Your task to perform on an android device: Is it going to rain tomorrow? Image 0: 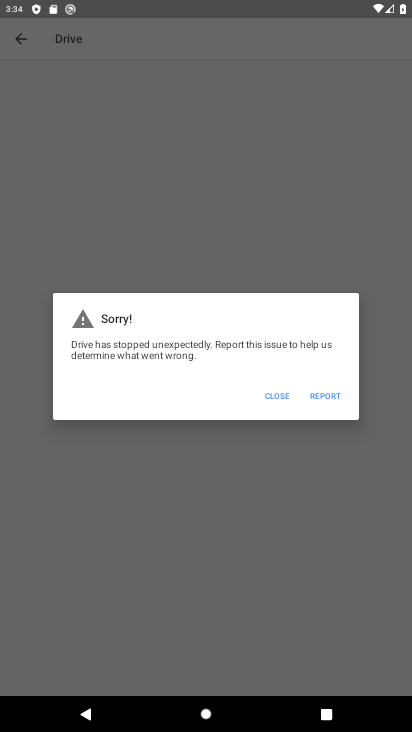
Step 0: click (277, 396)
Your task to perform on an android device: Is it going to rain tomorrow? Image 1: 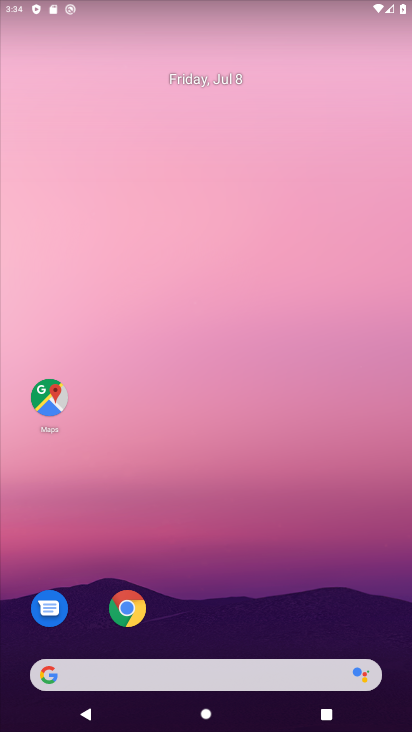
Step 1: drag from (207, 593) to (289, 122)
Your task to perform on an android device: Is it going to rain tomorrow? Image 2: 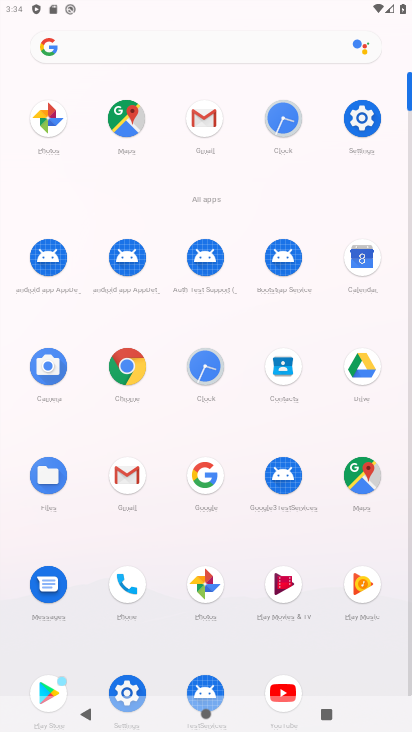
Step 2: click (120, 346)
Your task to perform on an android device: Is it going to rain tomorrow? Image 3: 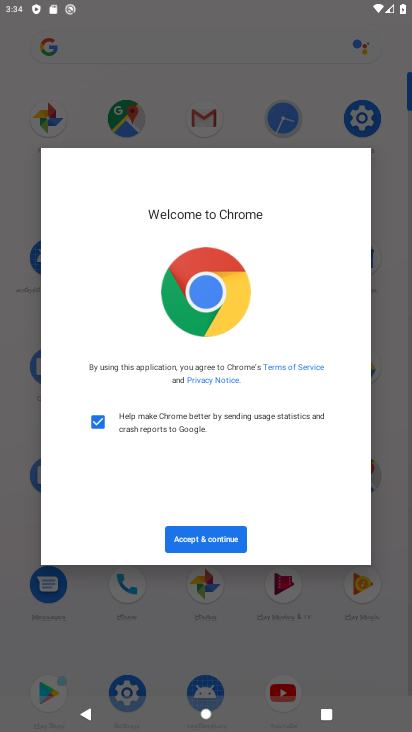
Step 3: click (211, 547)
Your task to perform on an android device: Is it going to rain tomorrow? Image 4: 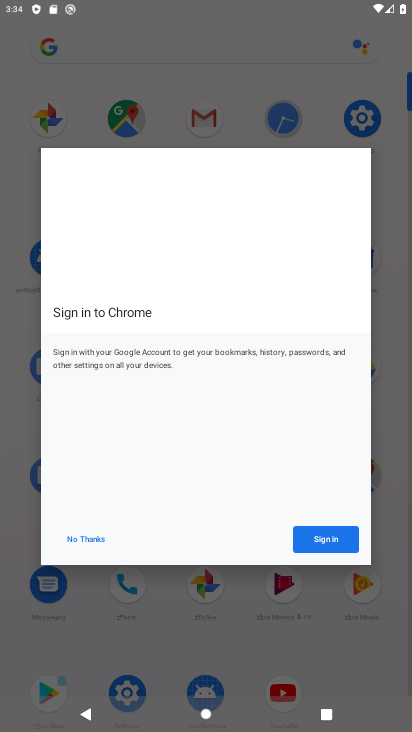
Step 4: click (338, 537)
Your task to perform on an android device: Is it going to rain tomorrow? Image 5: 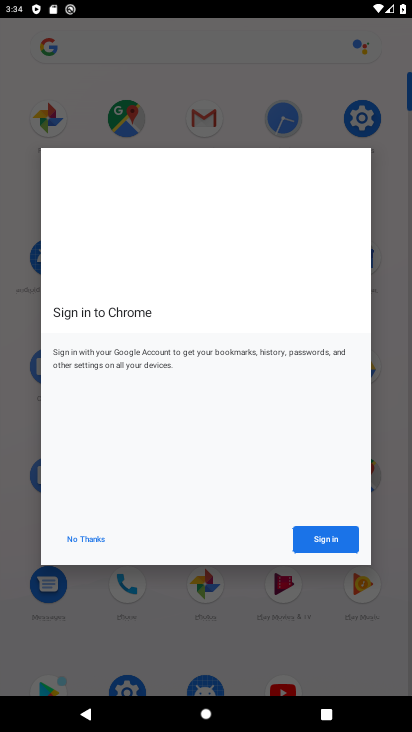
Step 5: click (338, 537)
Your task to perform on an android device: Is it going to rain tomorrow? Image 6: 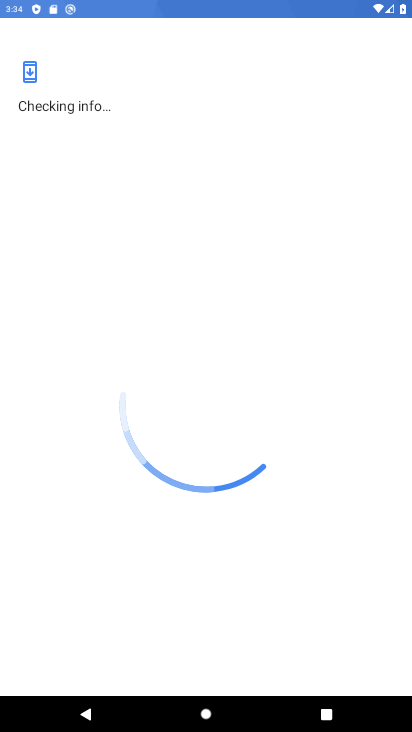
Step 6: task complete